Your task to perform on an android device: show emergency info Image 0: 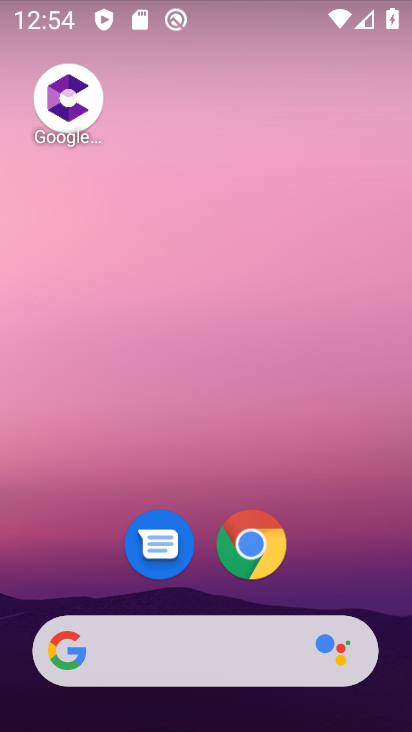
Step 0: drag from (247, 724) to (328, 2)
Your task to perform on an android device: show emergency info Image 1: 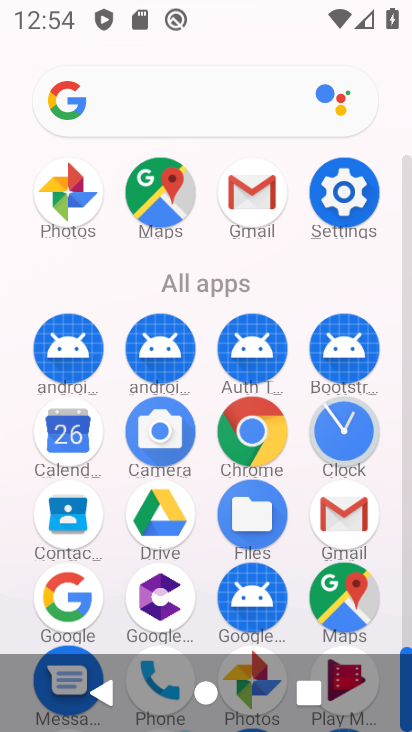
Step 1: click (347, 204)
Your task to perform on an android device: show emergency info Image 2: 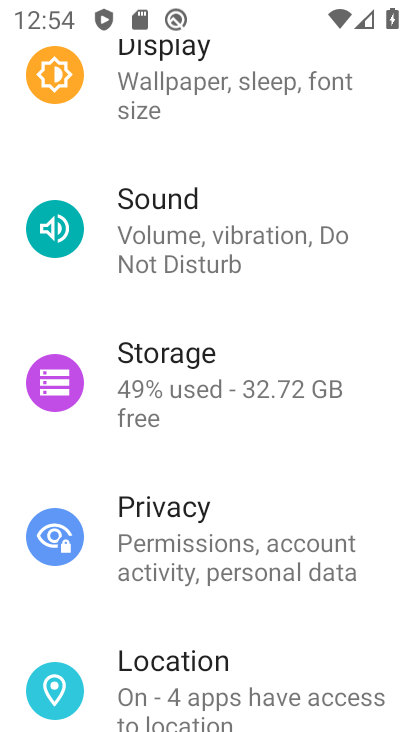
Step 2: drag from (186, 683) to (207, 289)
Your task to perform on an android device: show emergency info Image 3: 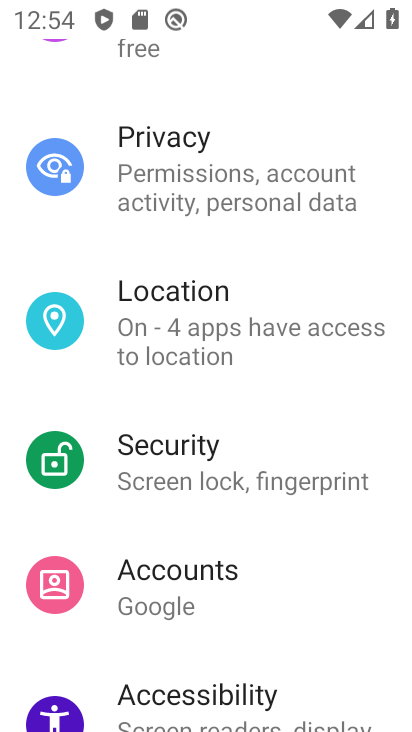
Step 3: drag from (244, 673) to (262, 374)
Your task to perform on an android device: show emergency info Image 4: 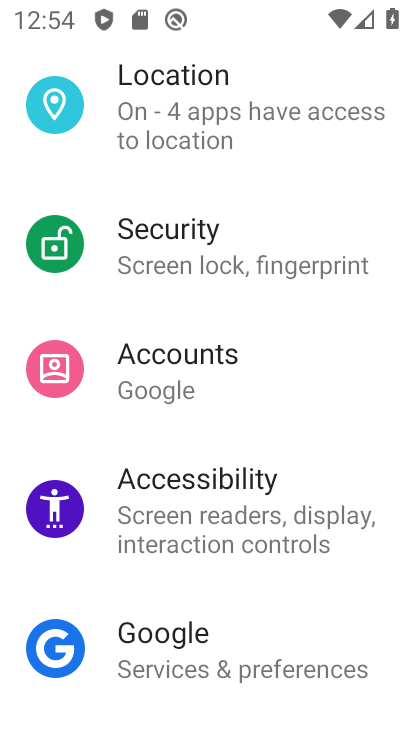
Step 4: drag from (223, 693) to (254, 306)
Your task to perform on an android device: show emergency info Image 5: 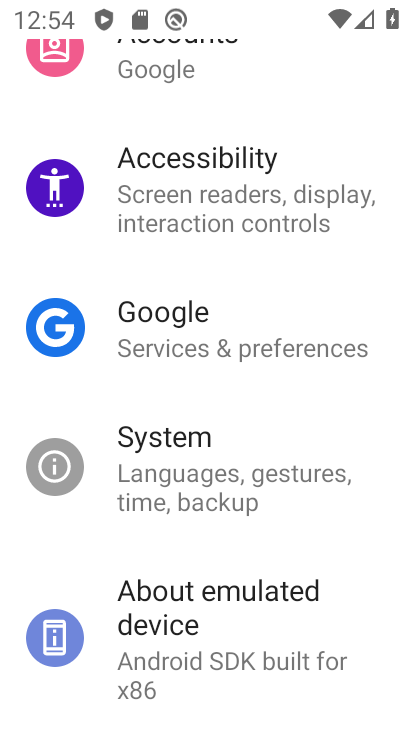
Step 5: drag from (235, 647) to (237, 209)
Your task to perform on an android device: show emergency info Image 6: 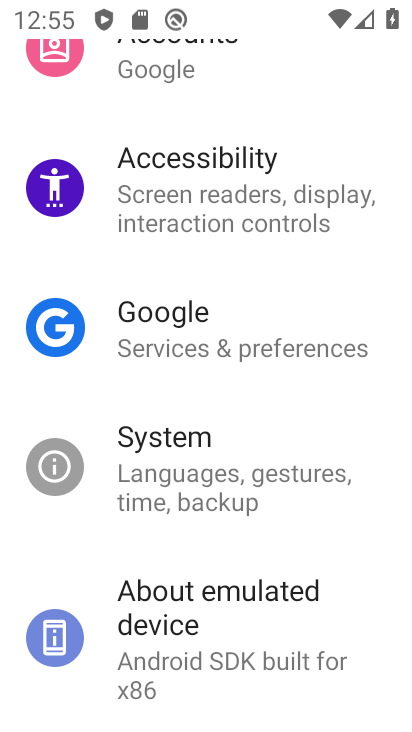
Step 6: click (162, 645)
Your task to perform on an android device: show emergency info Image 7: 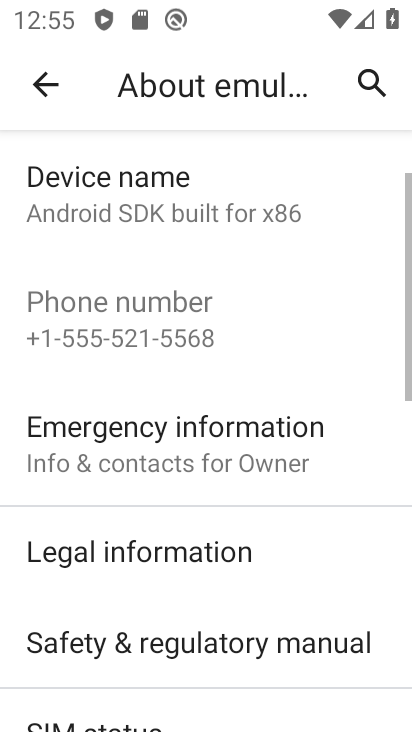
Step 7: click (150, 449)
Your task to perform on an android device: show emergency info Image 8: 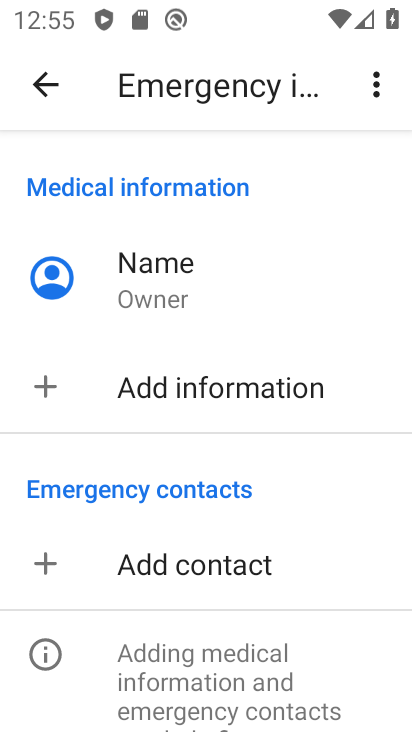
Step 8: task complete